Your task to perform on an android device: change the clock display to digital Image 0: 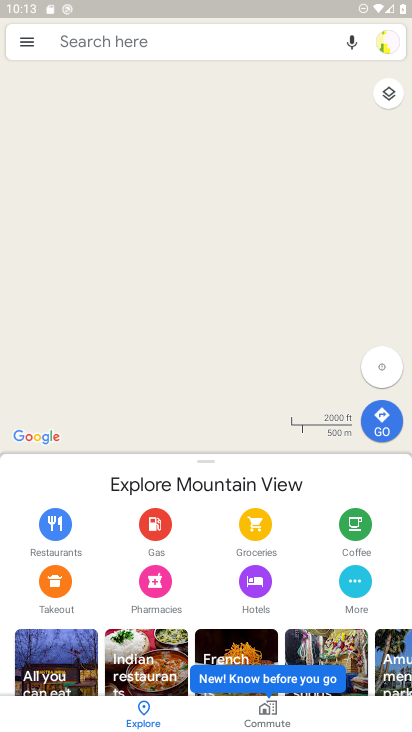
Step 0: press home button
Your task to perform on an android device: change the clock display to digital Image 1: 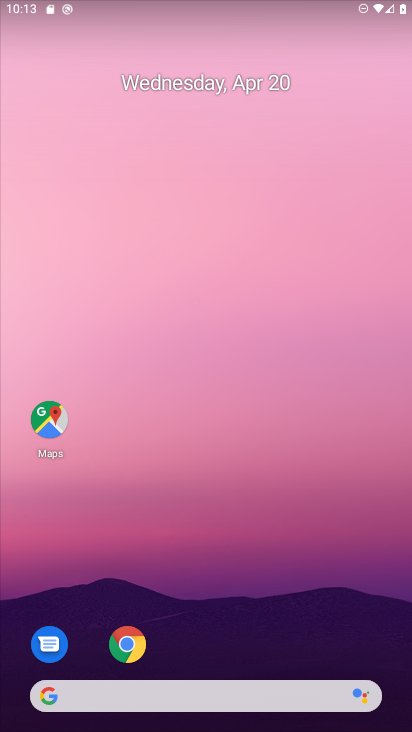
Step 1: drag from (329, 641) to (290, 58)
Your task to perform on an android device: change the clock display to digital Image 2: 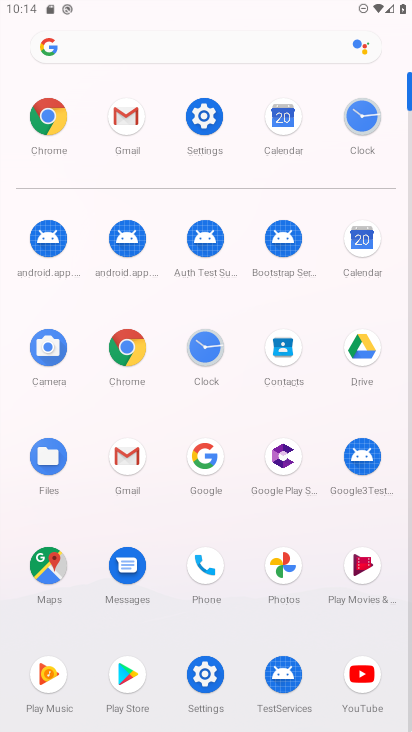
Step 2: click (372, 115)
Your task to perform on an android device: change the clock display to digital Image 3: 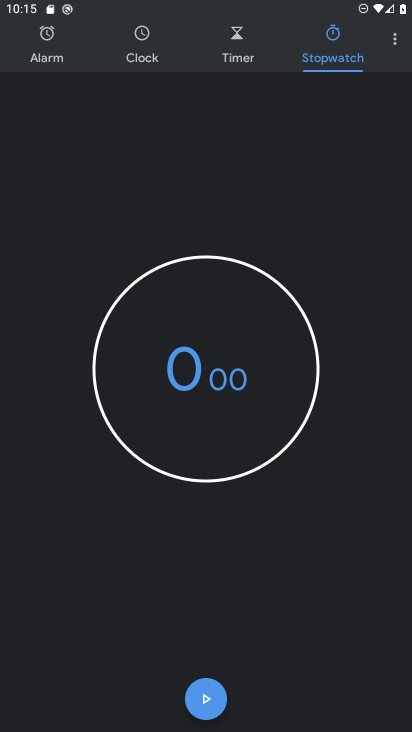
Step 3: click (389, 38)
Your task to perform on an android device: change the clock display to digital Image 4: 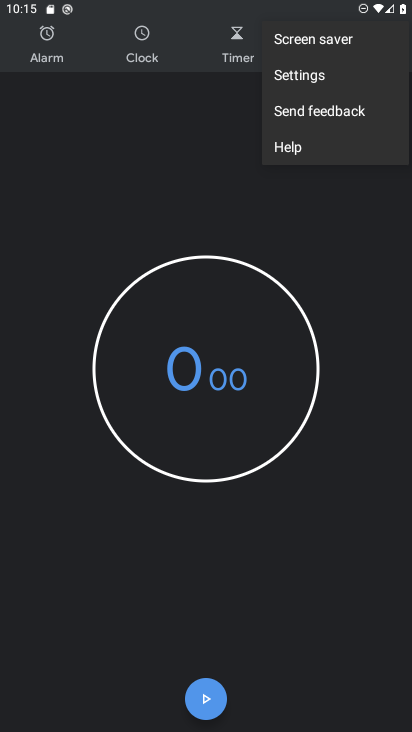
Step 4: click (340, 67)
Your task to perform on an android device: change the clock display to digital Image 5: 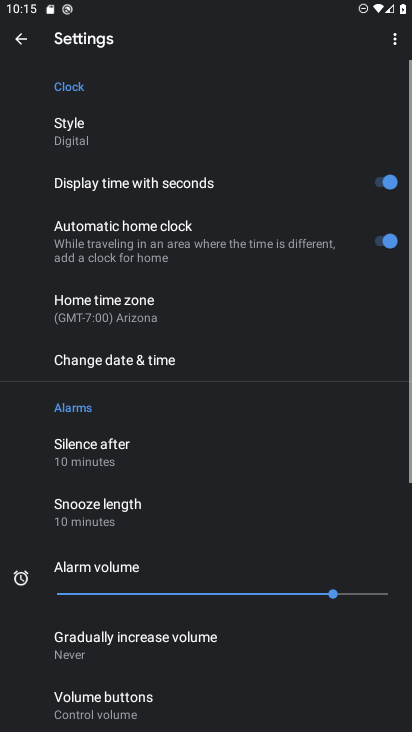
Step 5: click (181, 132)
Your task to perform on an android device: change the clock display to digital Image 6: 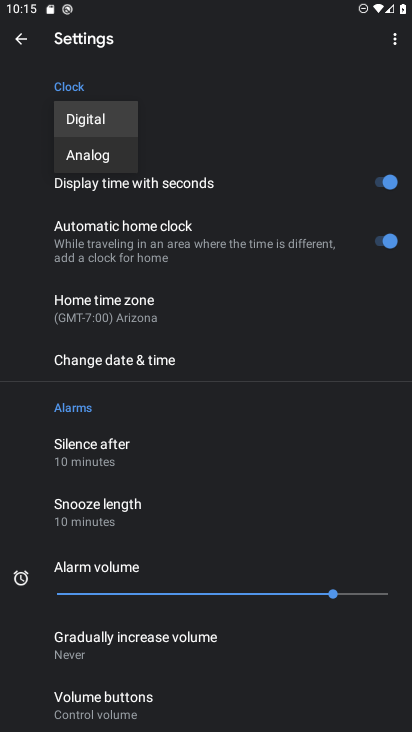
Step 6: click (111, 115)
Your task to perform on an android device: change the clock display to digital Image 7: 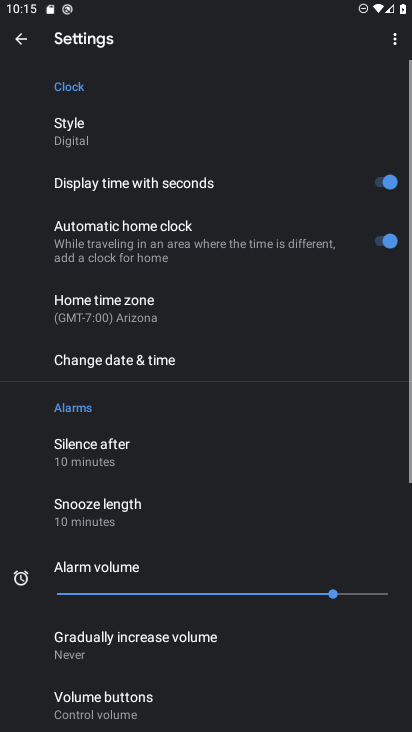
Step 7: task complete